Your task to perform on an android device: Open Chrome and go to the settings page Image 0: 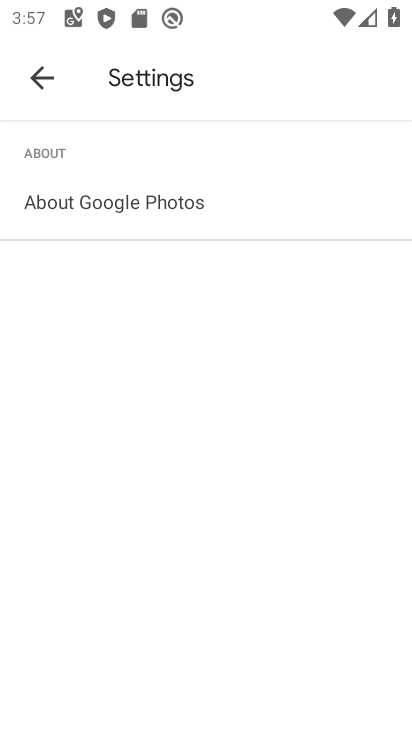
Step 0: press home button
Your task to perform on an android device: Open Chrome and go to the settings page Image 1: 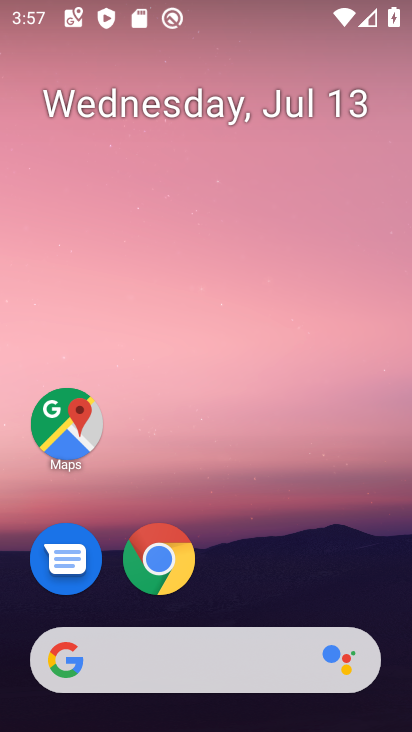
Step 1: click (179, 565)
Your task to perform on an android device: Open Chrome and go to the settings page Image 2: 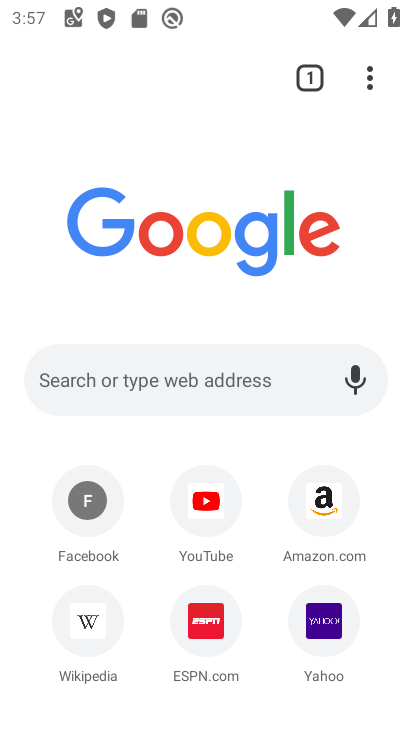
Step 2: click (369, 90)
Your task to perform on an android device: Open Chrome and go to the settings page Image 3: 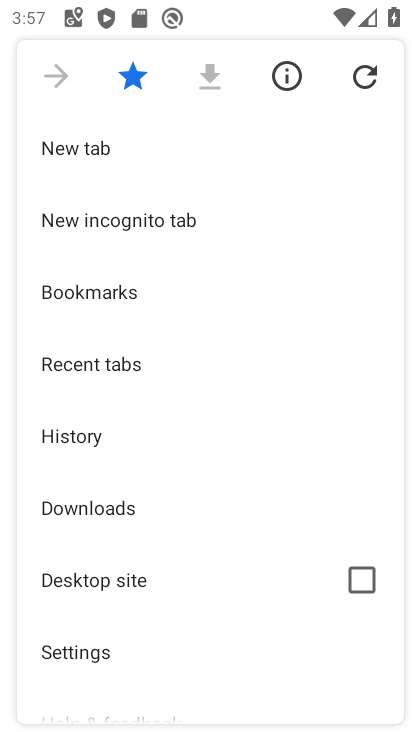
Step 3: click (143, 645)
Your task to perform on an android device: Open Chrome and go to the settings page Image 4: 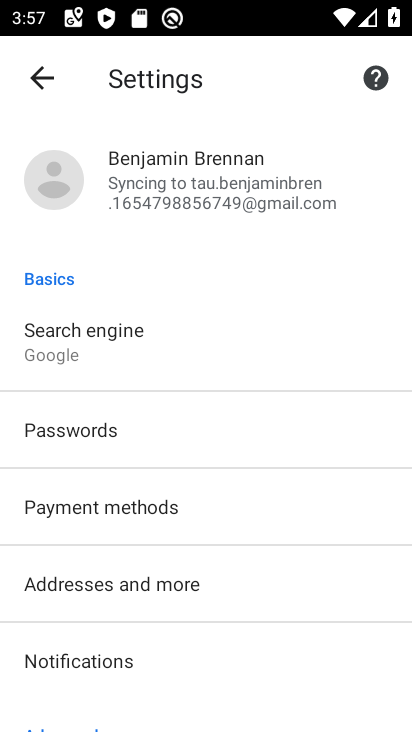
Step 4: task complete